Your task to perform on an android device: Is it going to rain tomorrow? Image 0: 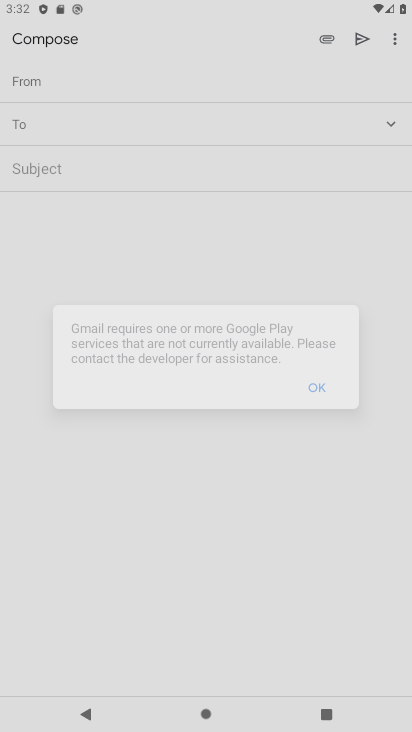
Step 0: drag from (253, 626) to (318, 320)
Your task to perform on an android device: Is it going to rain tomorrow? Image 1: 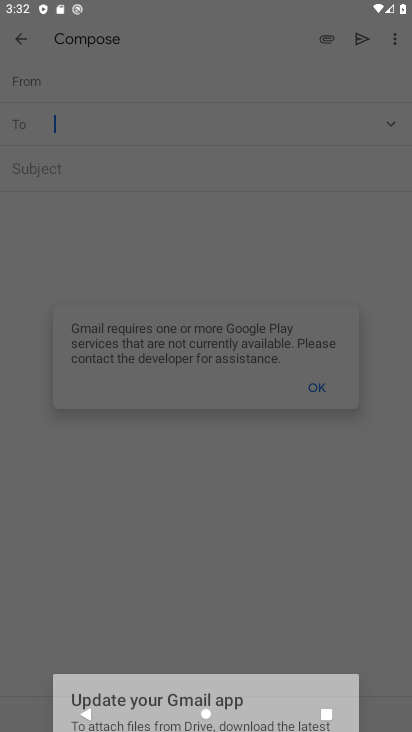
Step 1: press home button
Your task to perform on an android device: Is it going to rain tomorrow? Image 2: 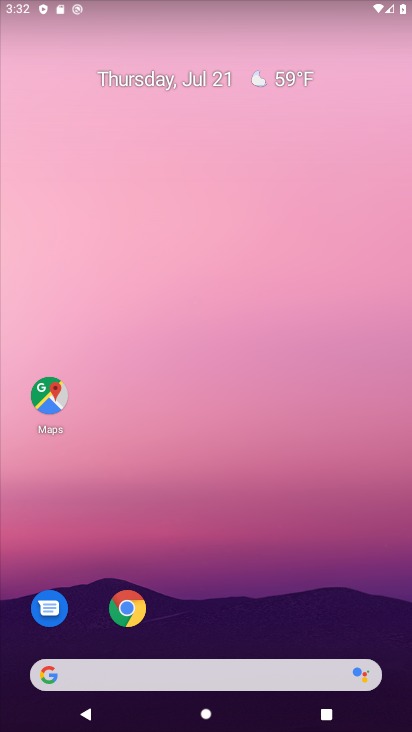
Step 2: drag from (252, 688) to (276, 147)
Your task to perform on an android device: Is it going to rain tomorrow? Image 3: 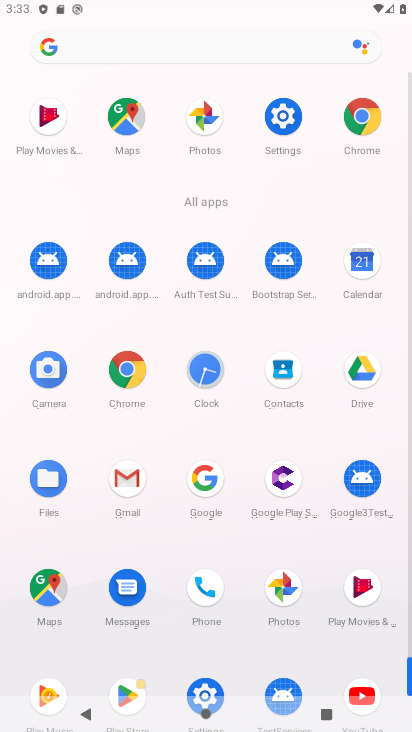
Step 3: click (121, 371)
Your task to perform on an android device: Is it going to rain tomorrow? Image 4: 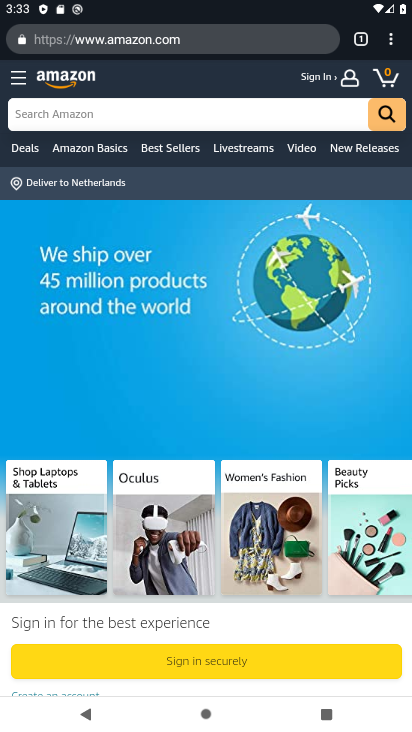
Step 4: click (231, 41)
Your task to perform on an android device: Is it going to rain tomorrow? Image 5: 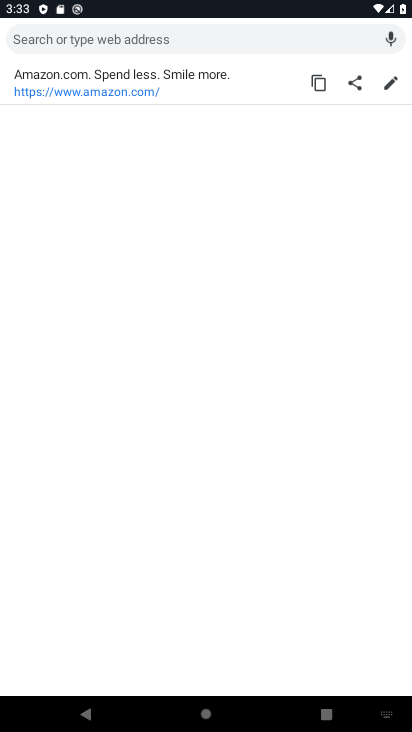
Step 5: type "going to rain tomorrow"
Your task to perform on an android device: Is it going to rain tomorrow? Image 6: 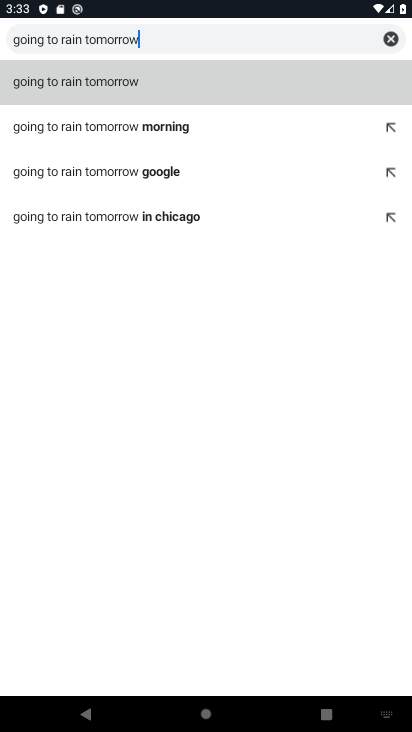
Step 6: click (146, 87)
Your task to perform on an android device: Is it going to rain tomorrow? Image 7: 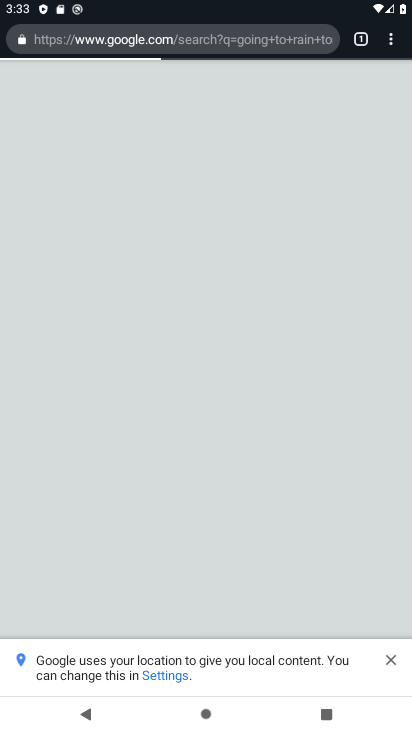
Step 7: task complete